Your task to perform on an android device: turn on priority inbox in the gmail app Image 0: 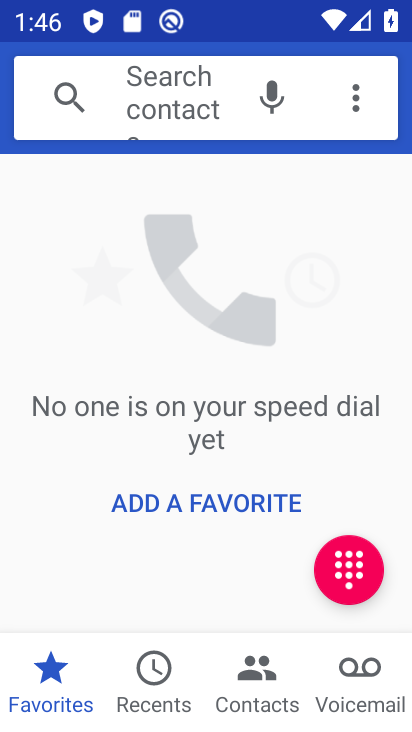
Step 0: press home button
Your task to perform on an android device: turn on priority inbox in the gmail app Image 1: 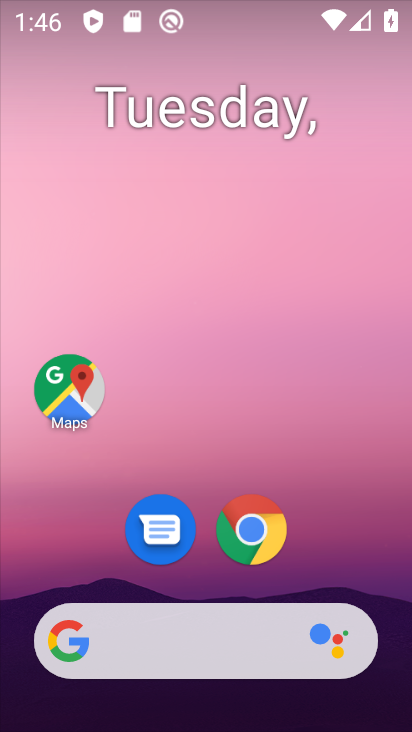
Step 1: drag from (340, 528) to (347, 44)
Your task to perform on an android device: turn on priority inbox in the gmail app Image 2: 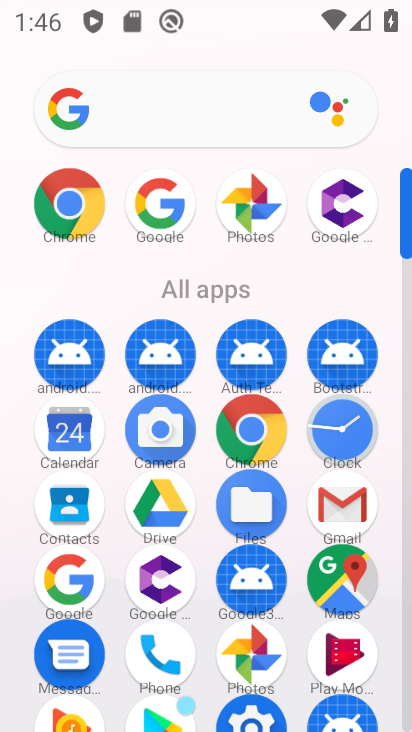
Step 2: click (342, 488)
Your task to perform on an android device: turn on priority inbox in the gmail app Image 3: 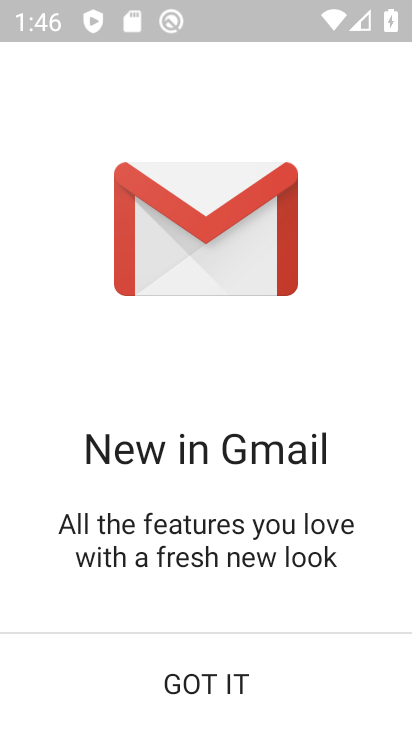
Step 3: click (185, 672)
Your task to perform on an android device: turn on priority inbox in the gmail app Image 4: 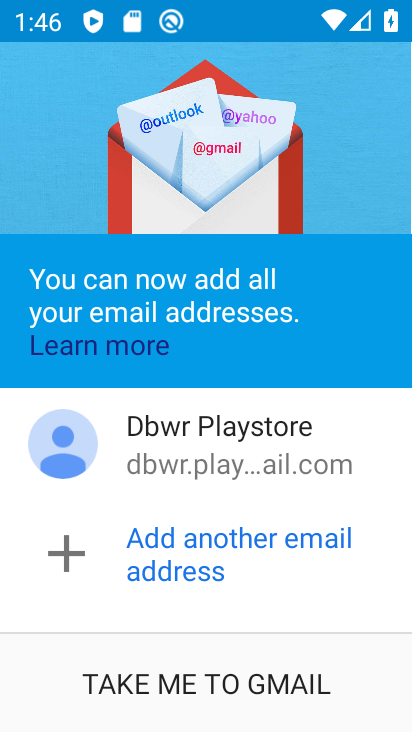
Step 4: click (185, 672)
Your task to perform on an android device: turn on priority inbox in the gmail app Image 5: 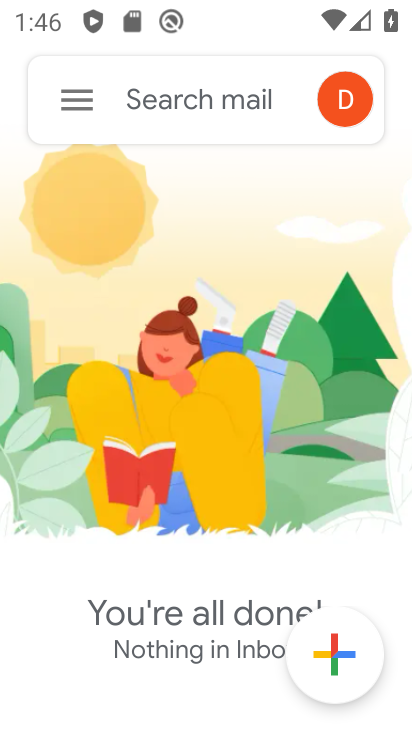
Step 5: click (75, 96)
Your task to perform on an android device: turn on priority inbox in the gmail app Image 6: 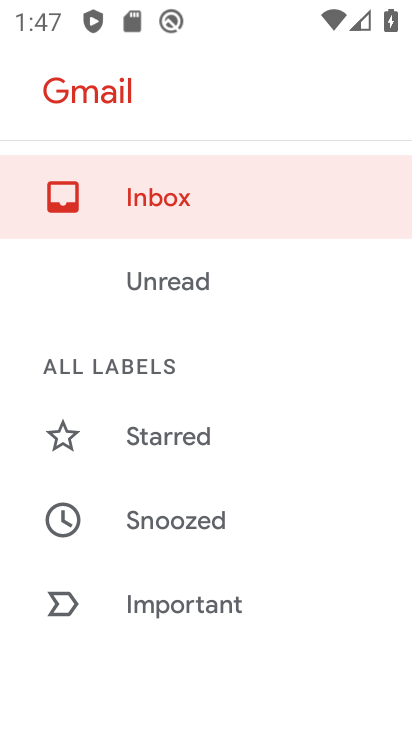
Step 6: drag from (181, 571) to (219, 61)
Your task to perform on an android device: turn on priority inbox in the gmail app Image 7: 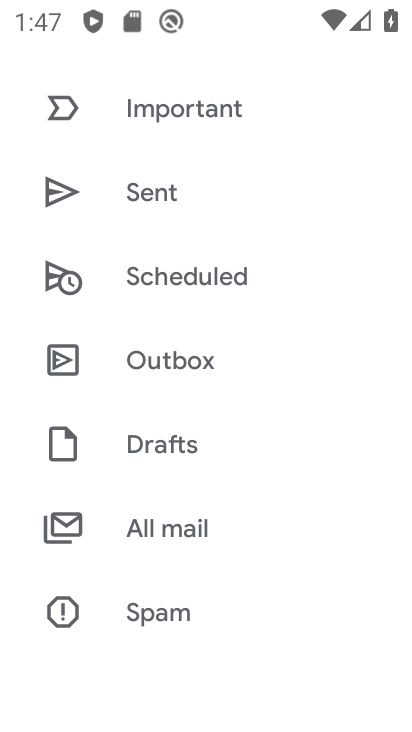
Step 7: drag from (201, 654) to (223, 184)
Your task to perform on an android device: turn on priority inbox in the gmail app Image 8: 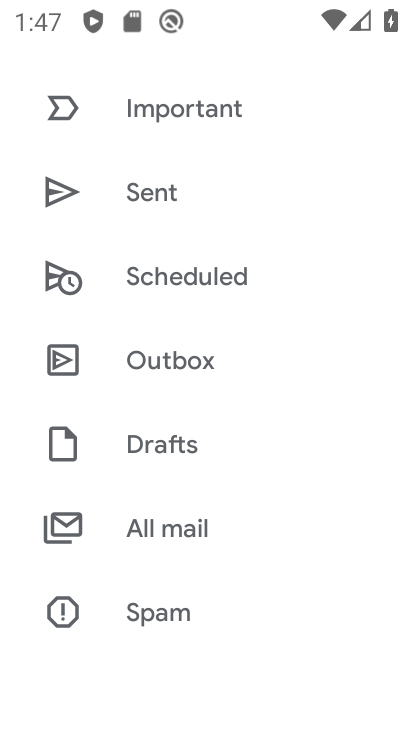
Step 8: drag from (241, 650) to (220, 174)
Your task to perform on an android device: turn on priority inbox in the gmail app Image 9: 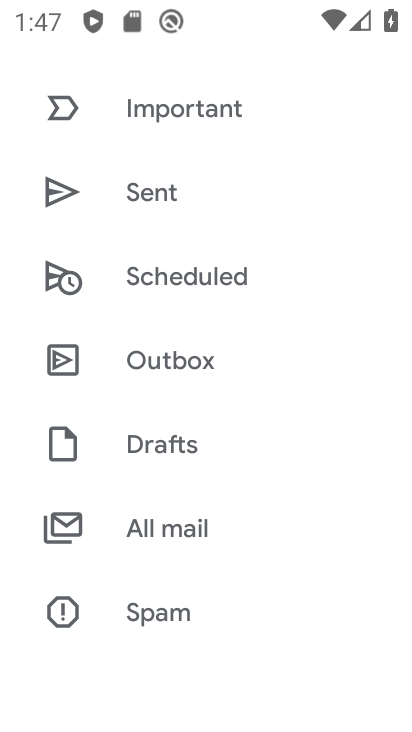
Step 9: drag from (199, 595) to (211, 448)
Your task to perform on an android device: turn on priority inbox in the gmail app Image 10: 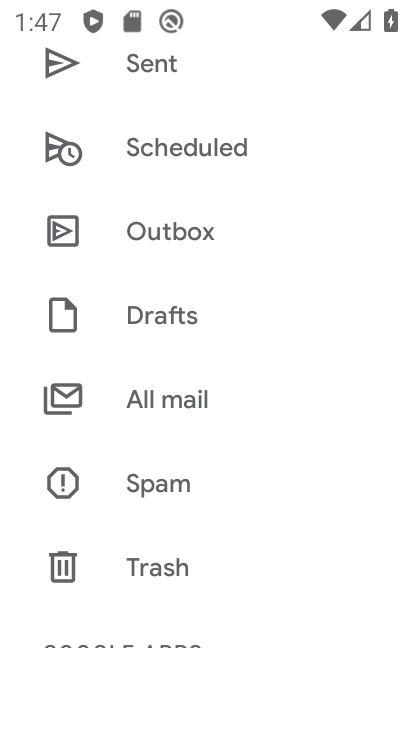
Step 10: drag from (222, 410) to (252, 154)
Your task to perform on an android device: turn on priority inbox in the gmail app Image 11: 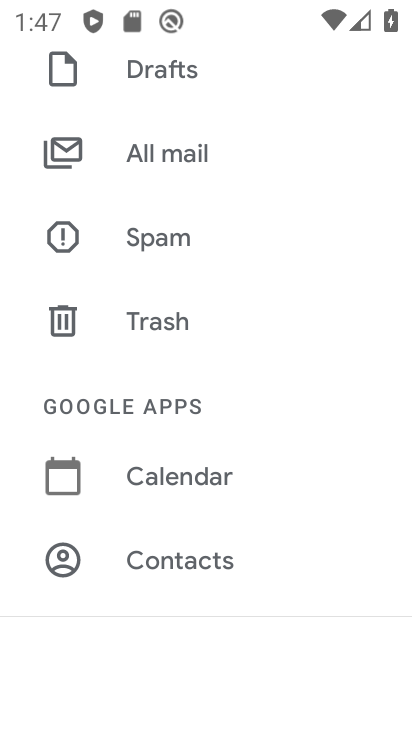
Step 11: drag from (215, 572) to (261, 265)
Your task to perform on an android device: turn on priority inbox in the gmail app Image 12: 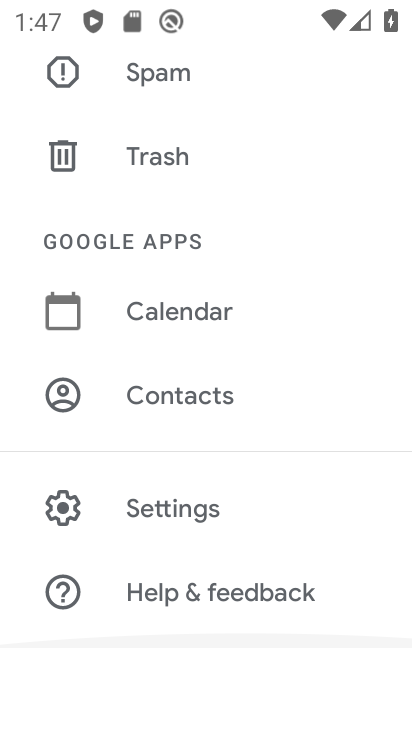
Step 12: click (185, 531)
Your task to perform on an android device: turn on priority inbox in the gmail app Image 13: 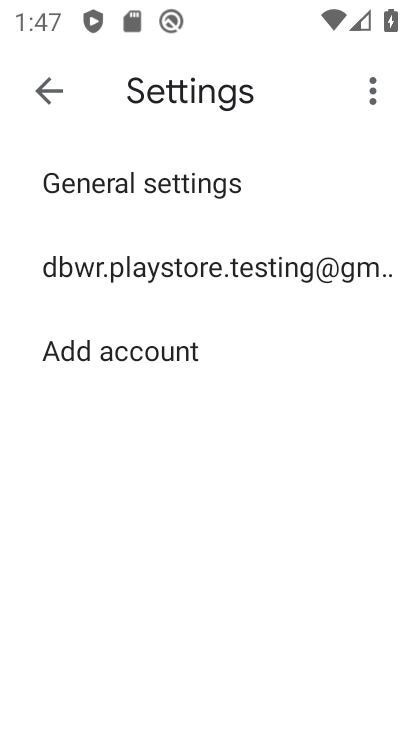
Step 13: click (162, 277)
Your task to perform on an android device: turn on priority inbox in the gmail app Image 14: 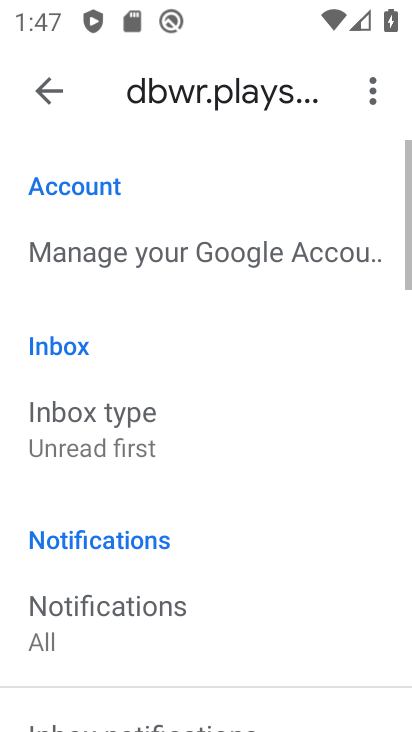
Step 14: drag from (146, 619) to (194, 597)
Your task to perform on an android device: turn on priority inbox in the gmail app Image 15: 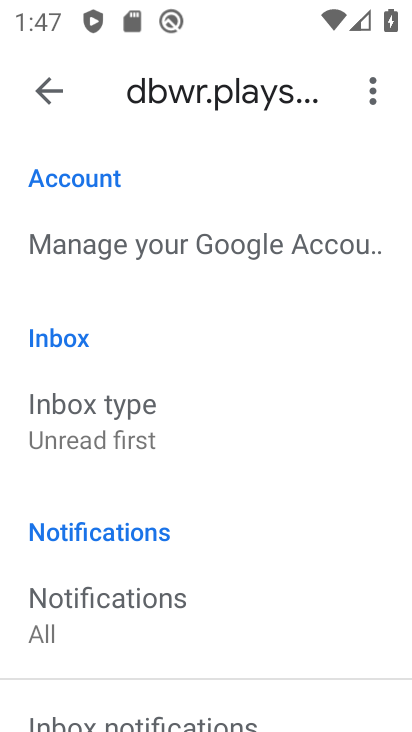
Step 15: click (135, 428)
Your task to perform on an android device: turn on priority inbox in the gmail app Image 16: 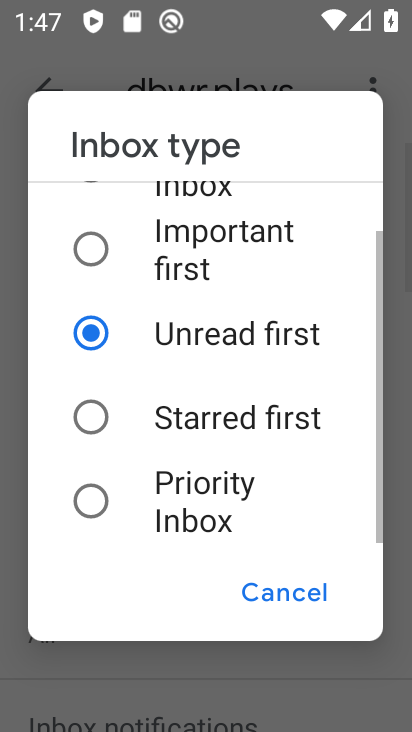
Step 16: click (90, 507)
Your task to perform on an android device: turn on priority inbox in the gmail app Image 17: 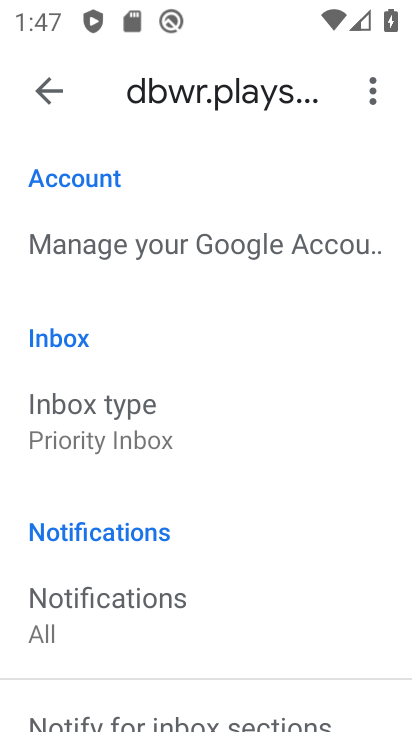
Step 17: task complete